Your task to perform on an android device: Open network settings Image 0: 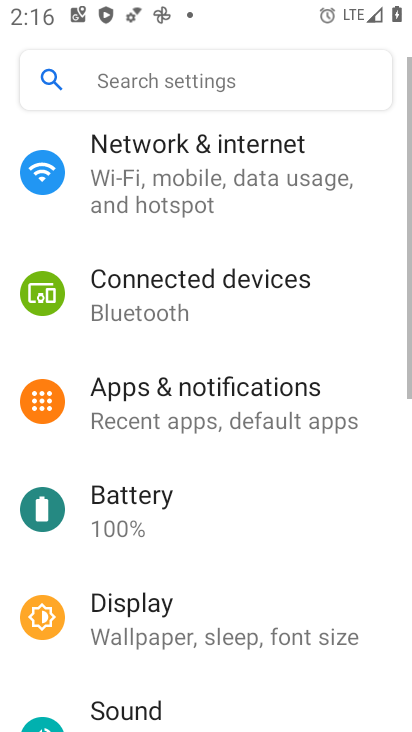
Step 0: drag from (345, 589) to (294, 606)
Your task to perform on an android device: Open network settings Image 1: 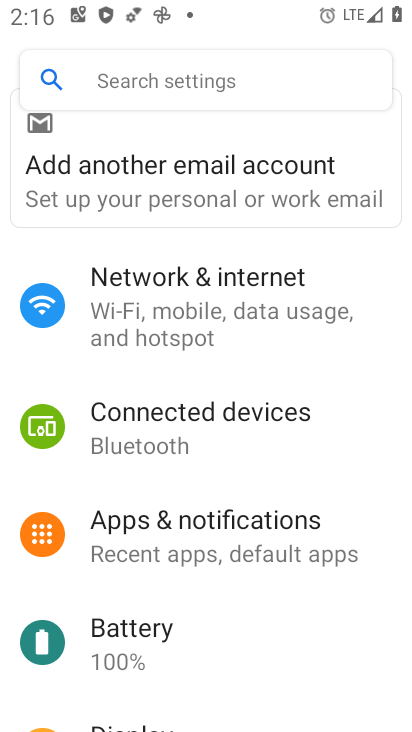
Step 1: click (237, 351)
Your task to perform on an android device: Open network settings Image 2: 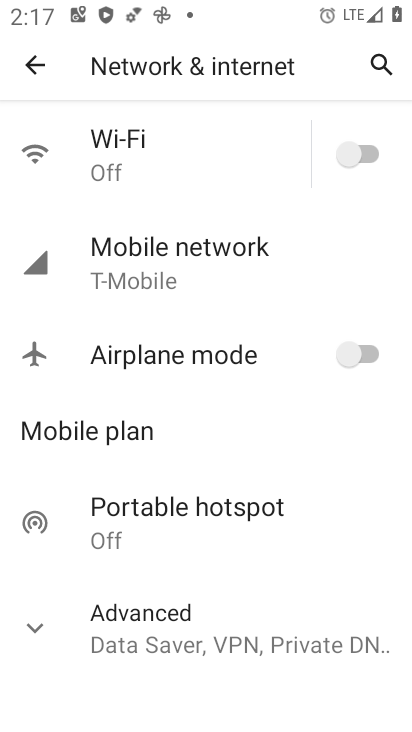
Step 2: task complete